Your task to perform on an android device: Open the calendar app, open the side menu, and click the "Day" option Image 0: 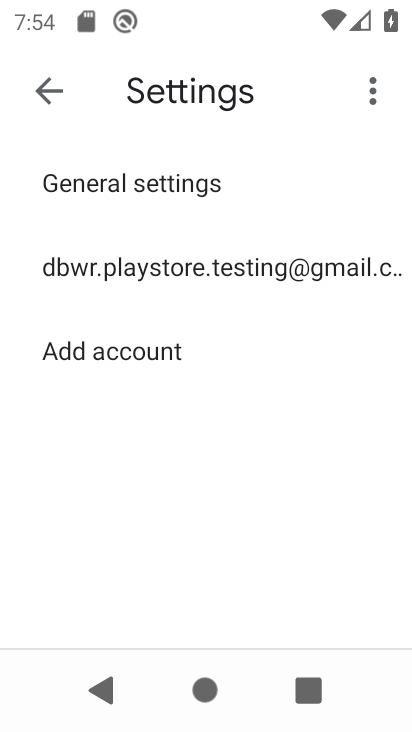
Step 0: press home button
Your task to perform on an android device: Open the calendar app, open the side menu, and click the "Day" option Image 1: 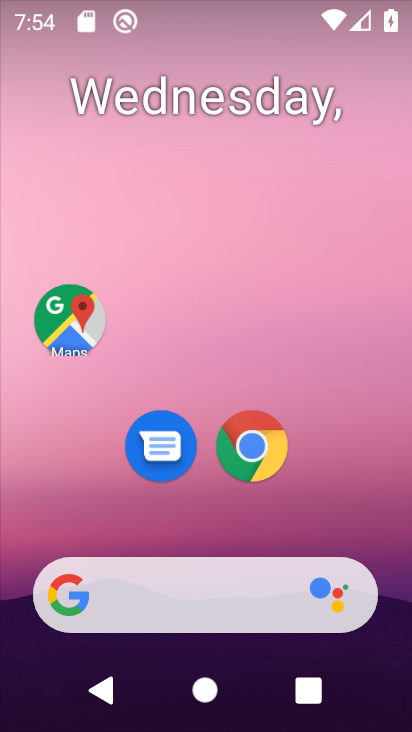
Step 1: drag from (210, 521) to (227, 41)
Your task to perform on an android device: Open the calendar app, open the side menu, and click the "Day" option Image 2: 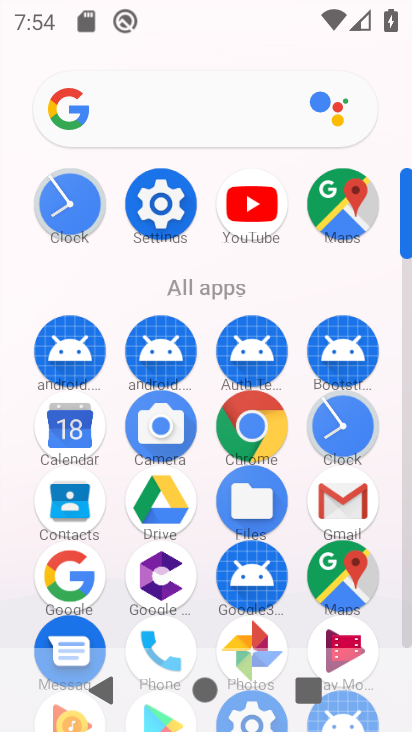
Step 2: click (69, 418)
Your task to perform on an android device: Open the calendar app, open the side menu, and click the "Day" option Image 3: 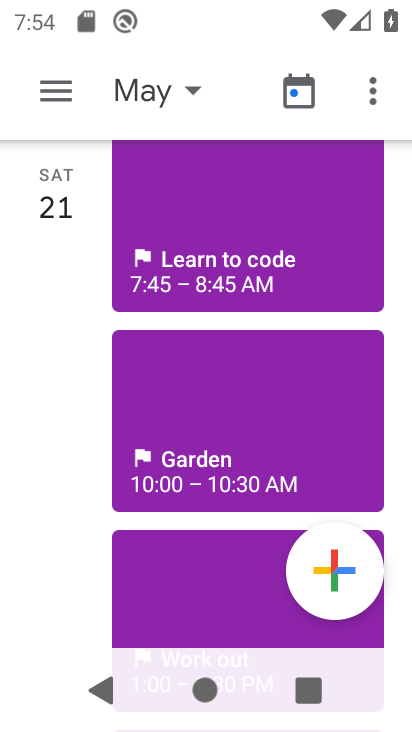
Step 3: click (47, 85)
Your task to perform on an android device: Open the calendar app, open the side menu, and click the "Day" option Image 4: 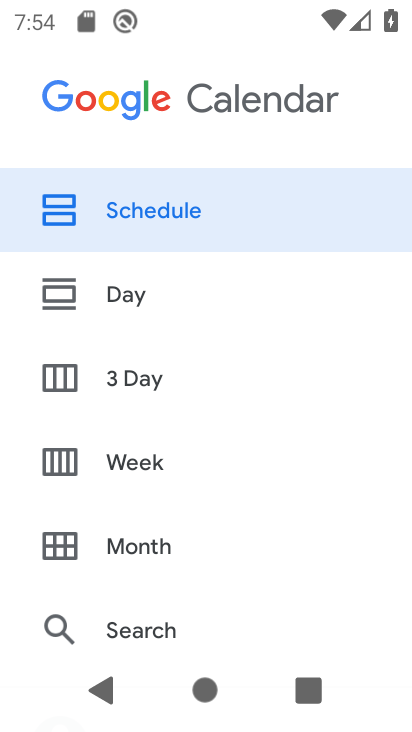
Step 4: click (93, 287)
Your task to perform on an android device: Open the calendar app, open the side menu, and click the "Day" option Image 5: 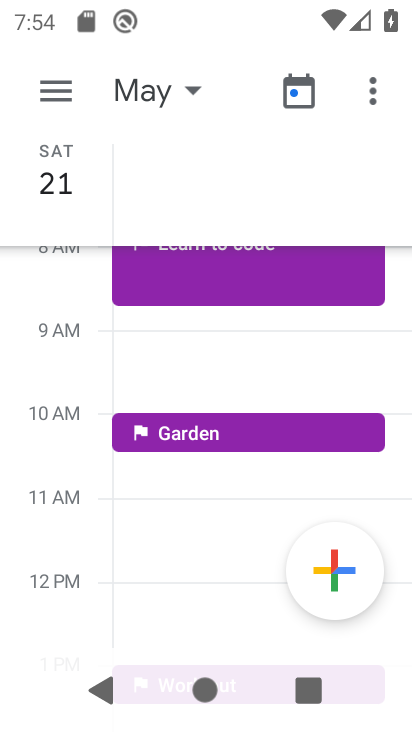
Step 5: task complete